Your task to perform on an android device: Open Chrome and go to settings Image 0: 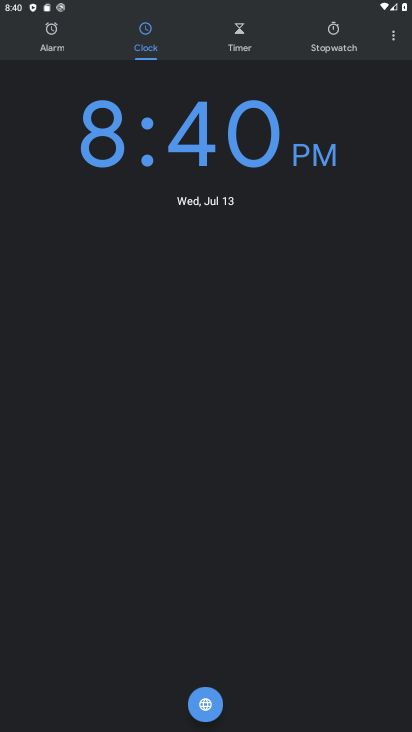
Step 0: press home button
Your task to perform on an android device: Open Chrome and go to settings Image 1: 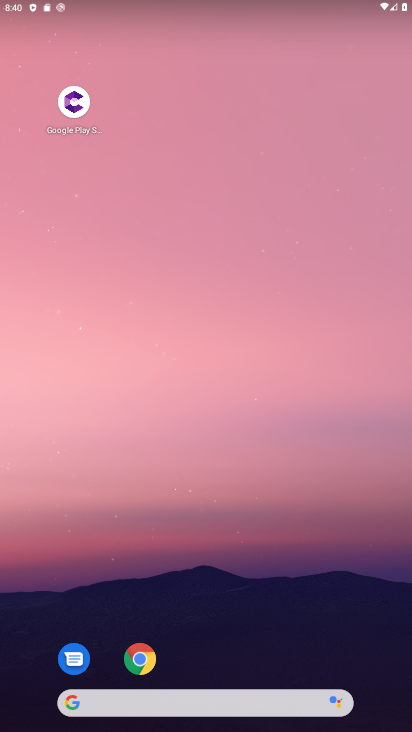
Step 1: click (139, 656)
Your task to perform on an android device: Open Chrome and go to settings Image 2: 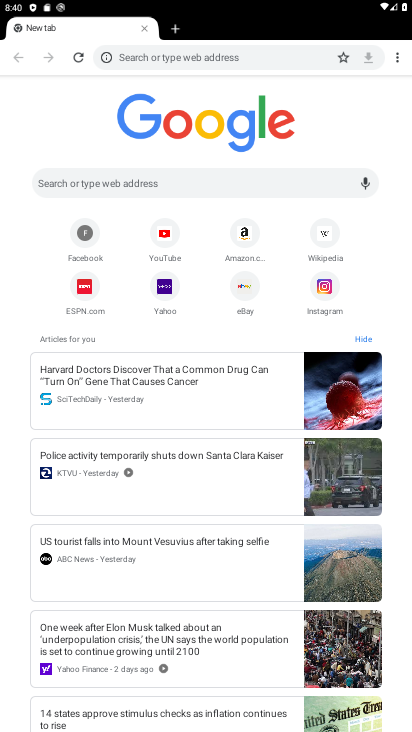
Step 2: click (394, 56)
Your task to perform on an android device: Open Chrome and go to settings Image 3: 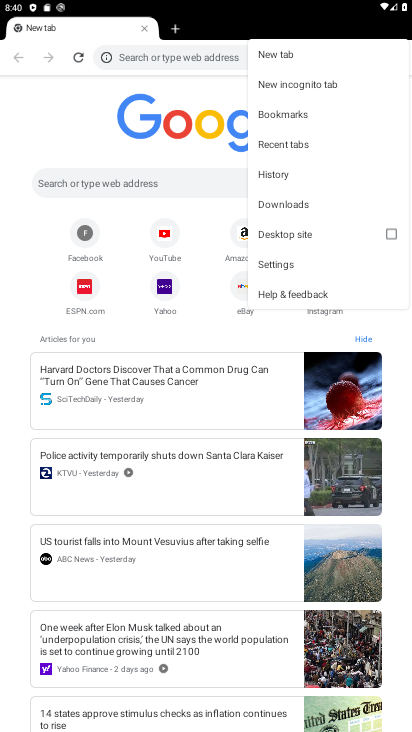
Step 3: click (297, 265)
Your task to perform on an android device: Open Chrome and go to settings Image 4: 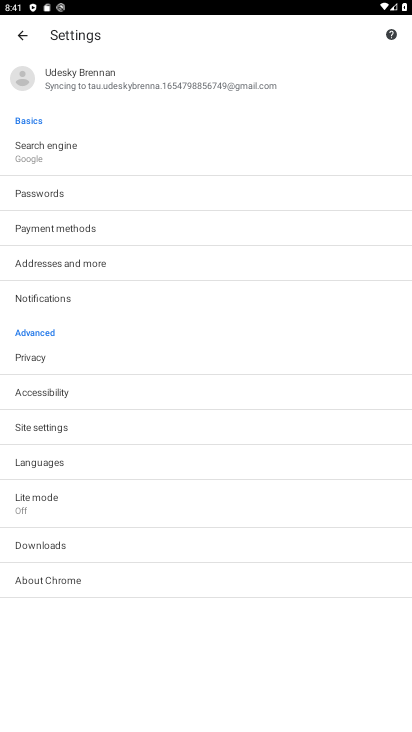
Step 4: task complete